Your task to perform on an android device: empty trash in the gmail app Image 0: 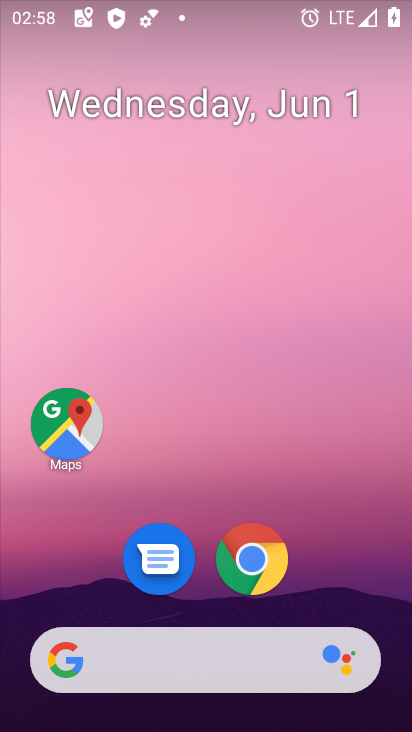
Step 0: drag from (341, 468) to (347, 7)
Your task to perform on an android device: empty trash in the gmail app Image 1: 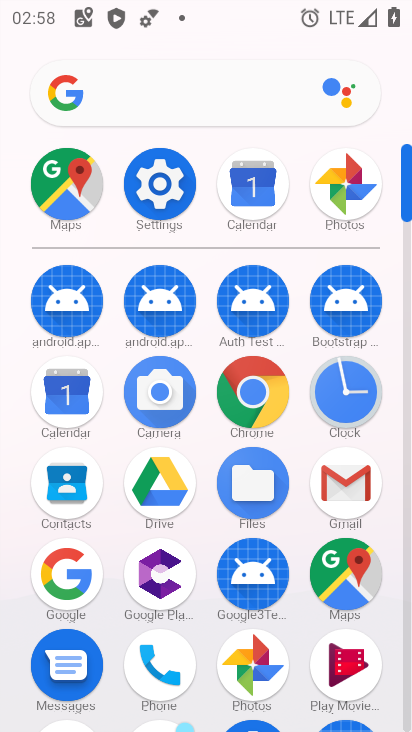
Step 1: click (350, 491)
Your task to perform on an android device: empty trash in the gmail app Image 2: 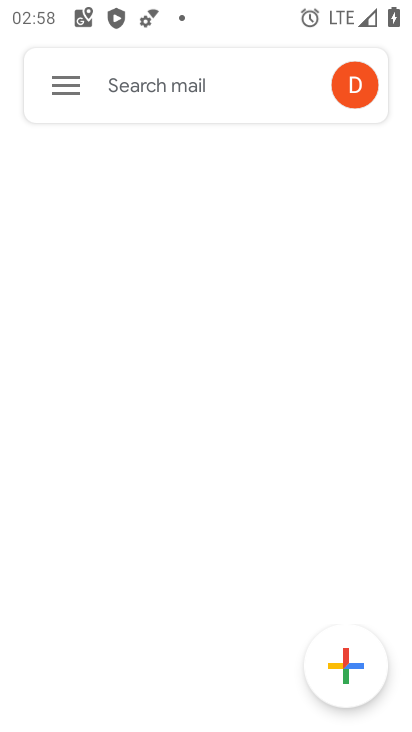
Step 2: click (56, 90)
Your task to perform on an android device: empty trash in the gmail app Image 3: 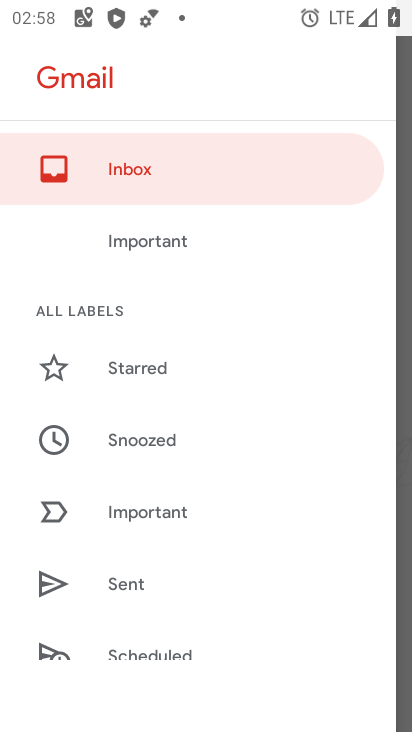
Step 3: drag from (267, 607) to (301, 254)
Your task to perform on an android device: empty trash in the gmail app Image 4: 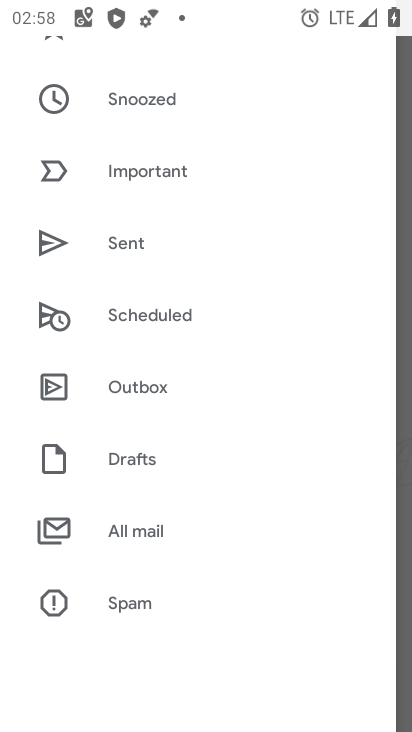
Step 4: drag from (351, 546) to (368, 349)
Your task to perform on an android device: empty trash in the gmail app Image 5: 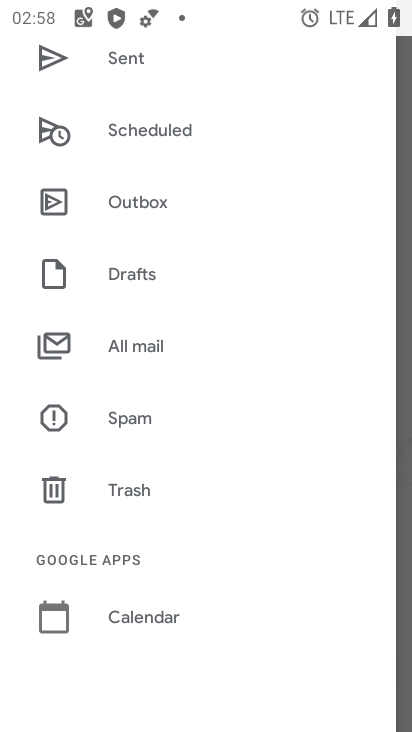
Step 5: click (121, 485)
Your task to perform on an android device: empty trash in the gmail app Image 6: 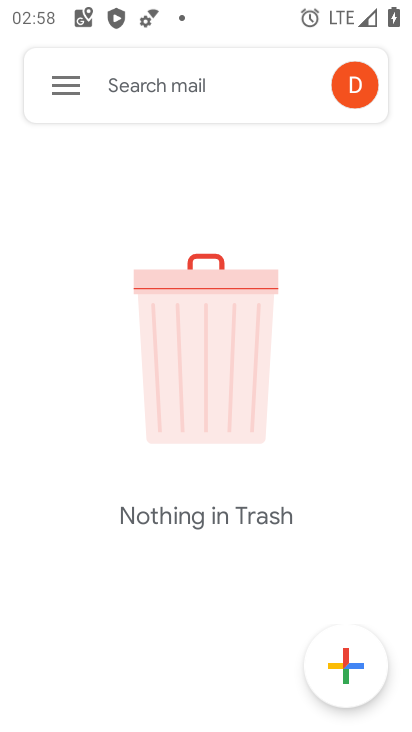
Step 6: task complete